Your task to perform on an android device: Search for bose soundsport free on costco, select the first entry, add it to the cart, then select checkout. Image 0: 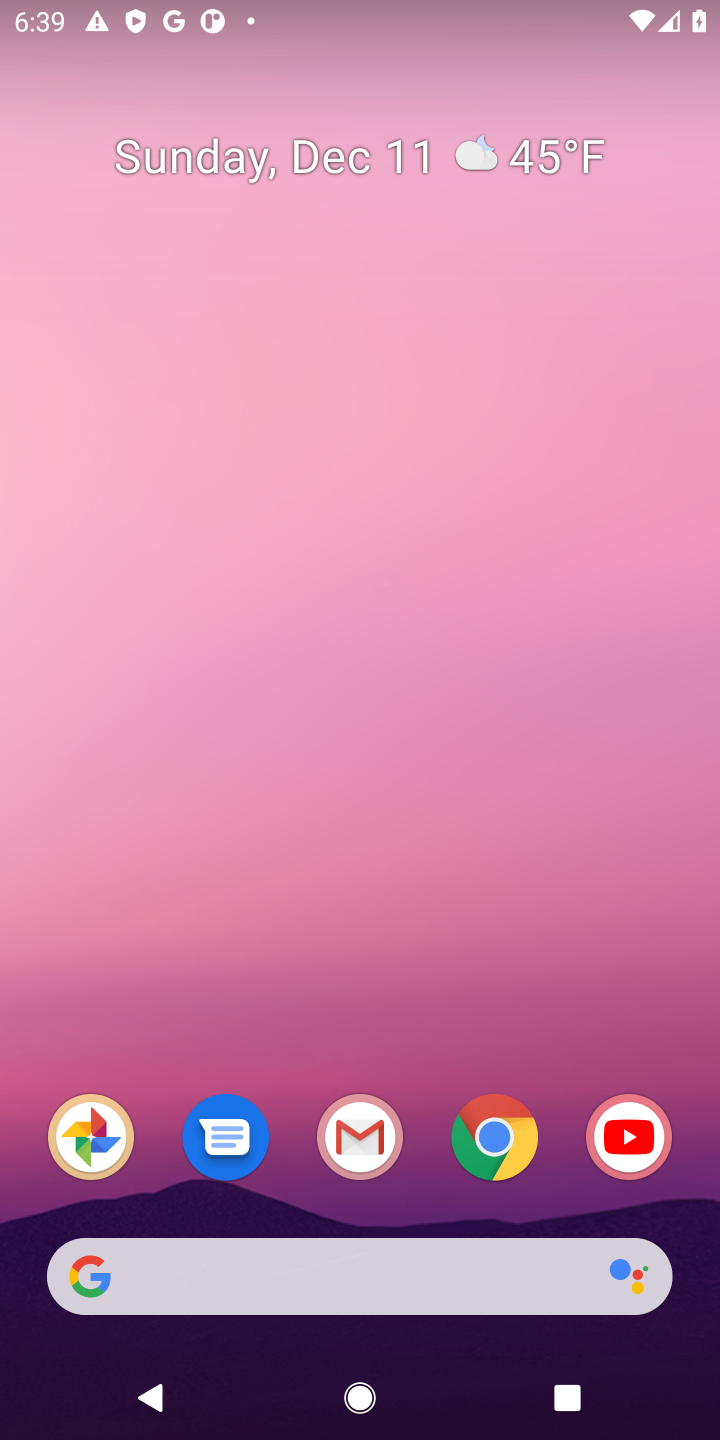
Step 0: click (497, 1123)
Your task to perform on an android device: Search for bose soundsport free on costco, select the first entry, add it to the cart, then select checkout. Image 1: 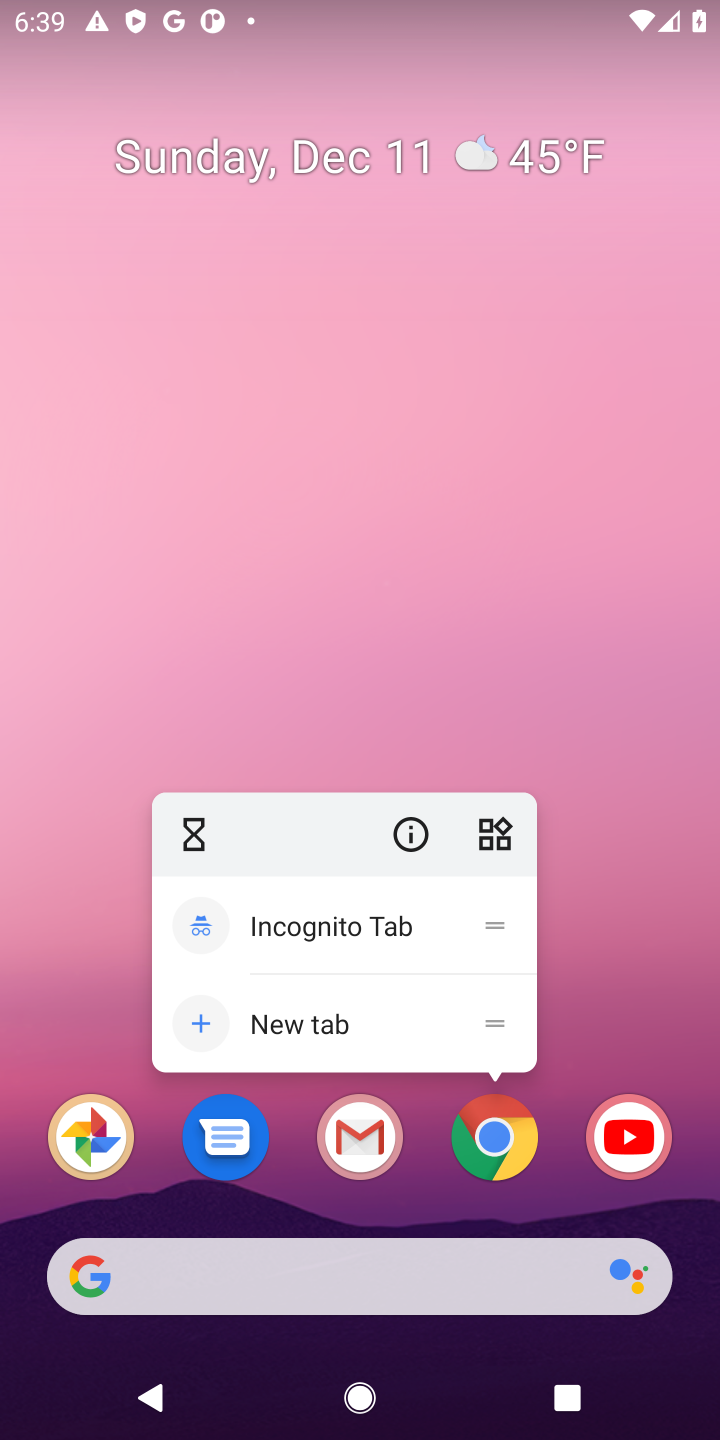
Step 1: click (342, 1016)
Your task to perform on an android device: Search for bose soundsport free on costco, select the first entry, add it to the cart, then select checkout. Image 2: 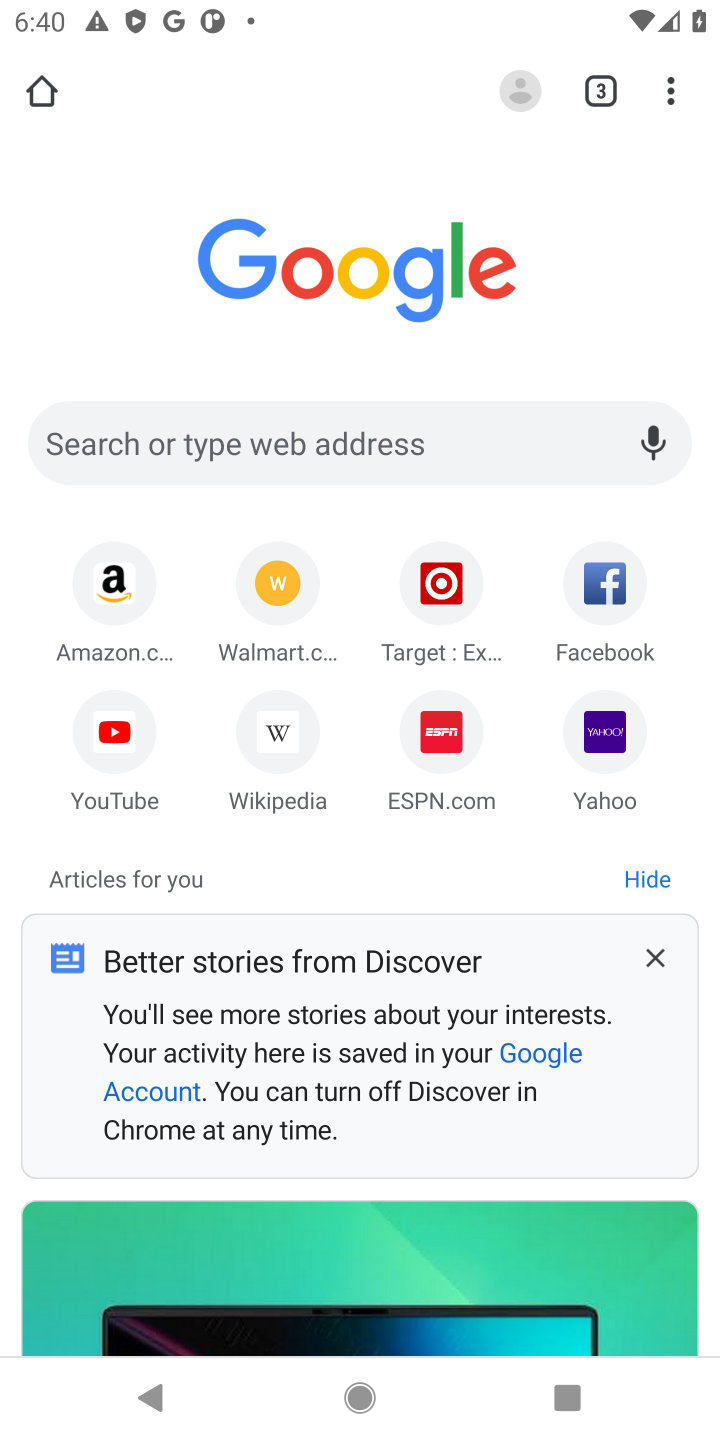
Step 2: click (196, 429)
Your task to perform on an android device: Search for bose soundsport free on costco, select the first entry, add it to the cart, then select checkout. Image 3: 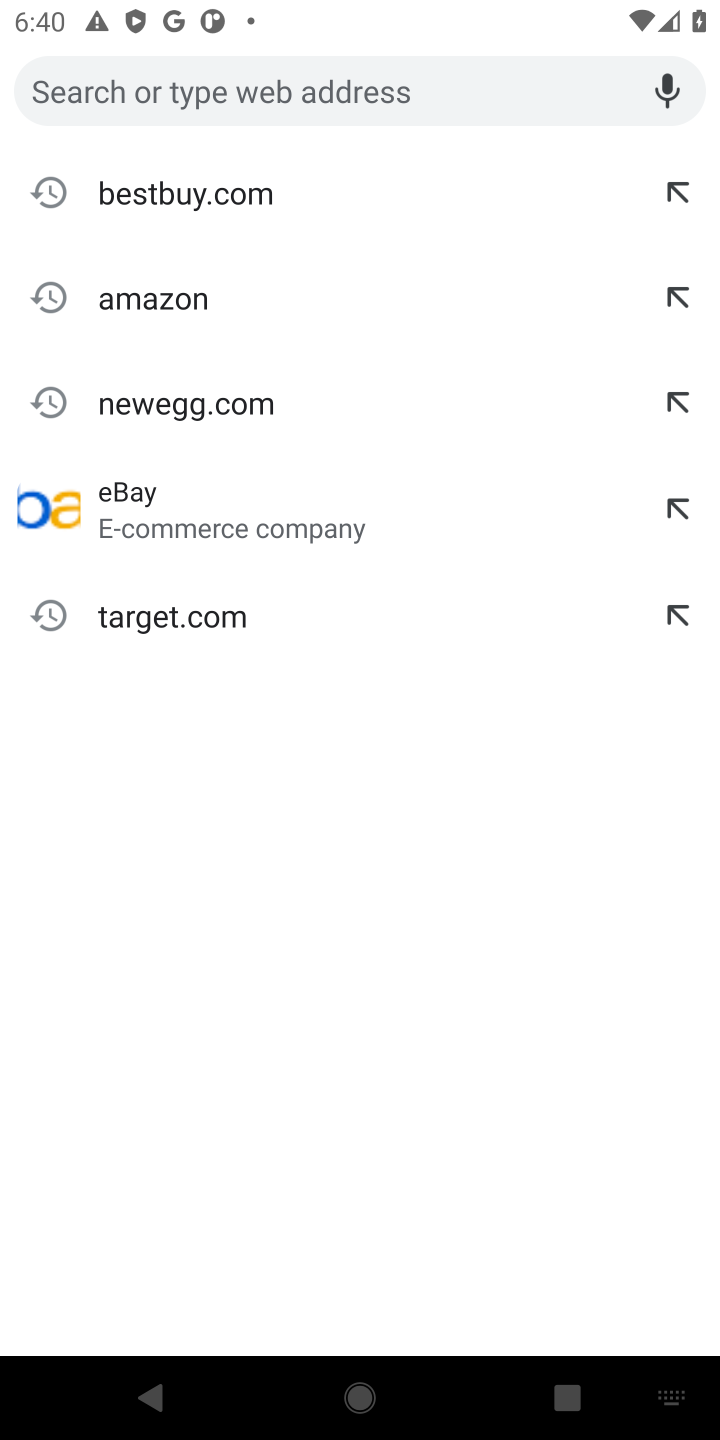
Step 3: type "costco"
Your task to perform on an android device: Search for bose soundsport free on costco, select the first entry, add it to the cart, then select checkout. Image 4: 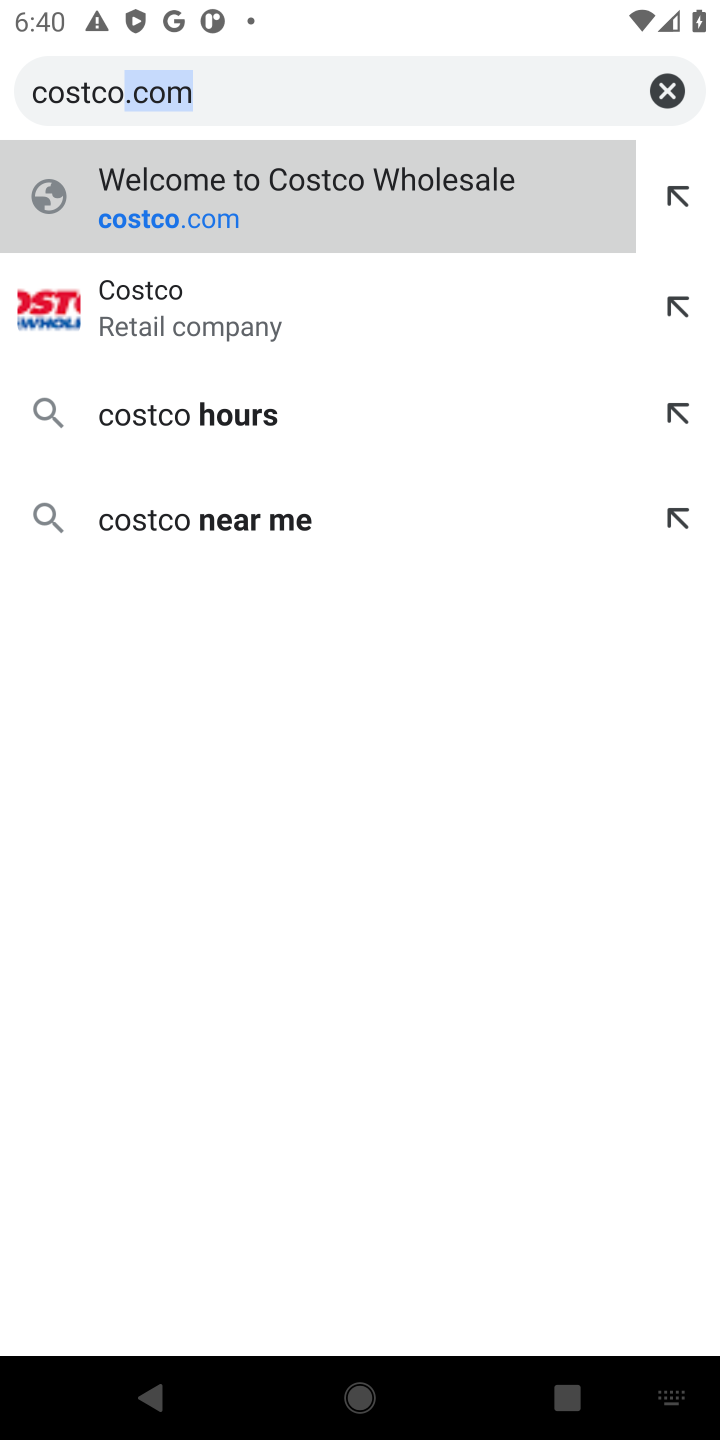
Step 4: click (368, 221)
Your task to perform on an android device: Search for bose soundsport free on costco, select the first entry, add it to the cart, then select checkout. Image 5: 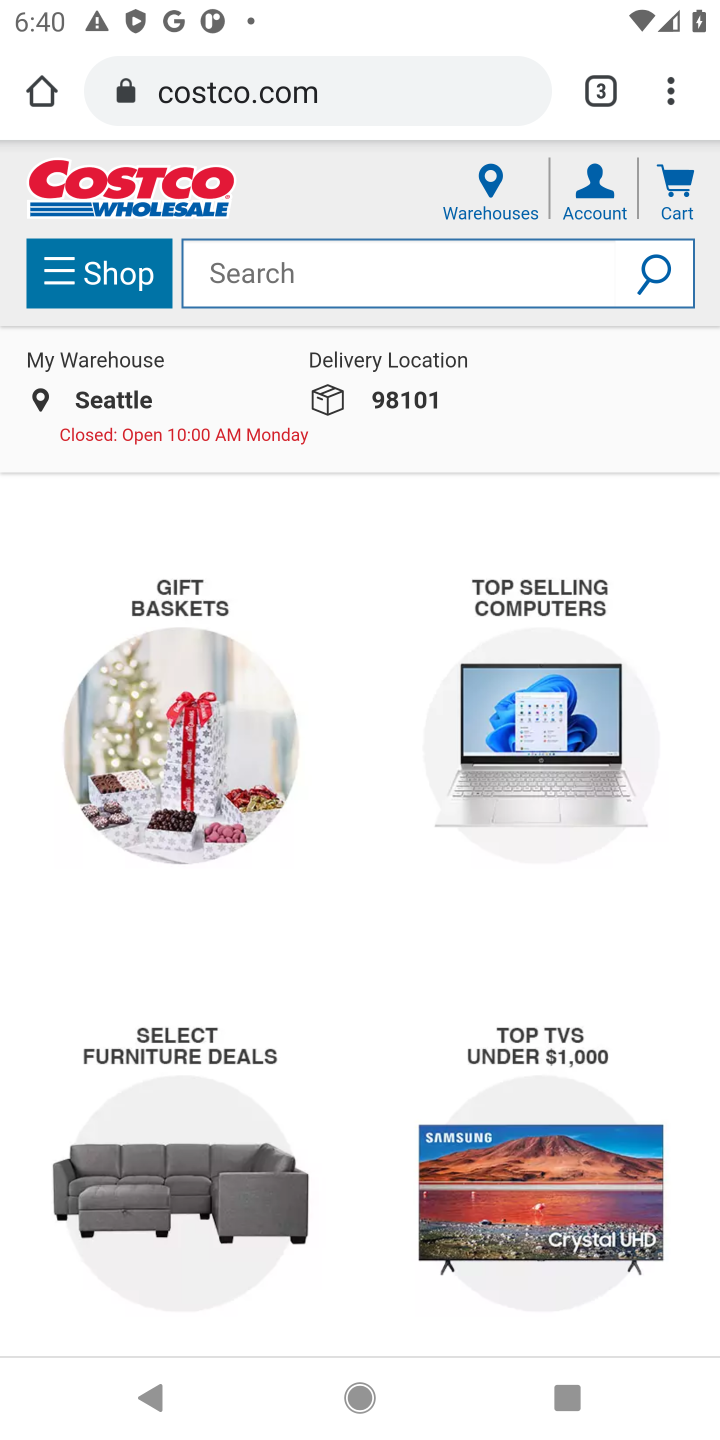
Step 5: click (343, 284)
Your task to perform on an android device: Search for bose soundsport free on costco, select the first entry, add it to the cart, then select checkout. Image 6: 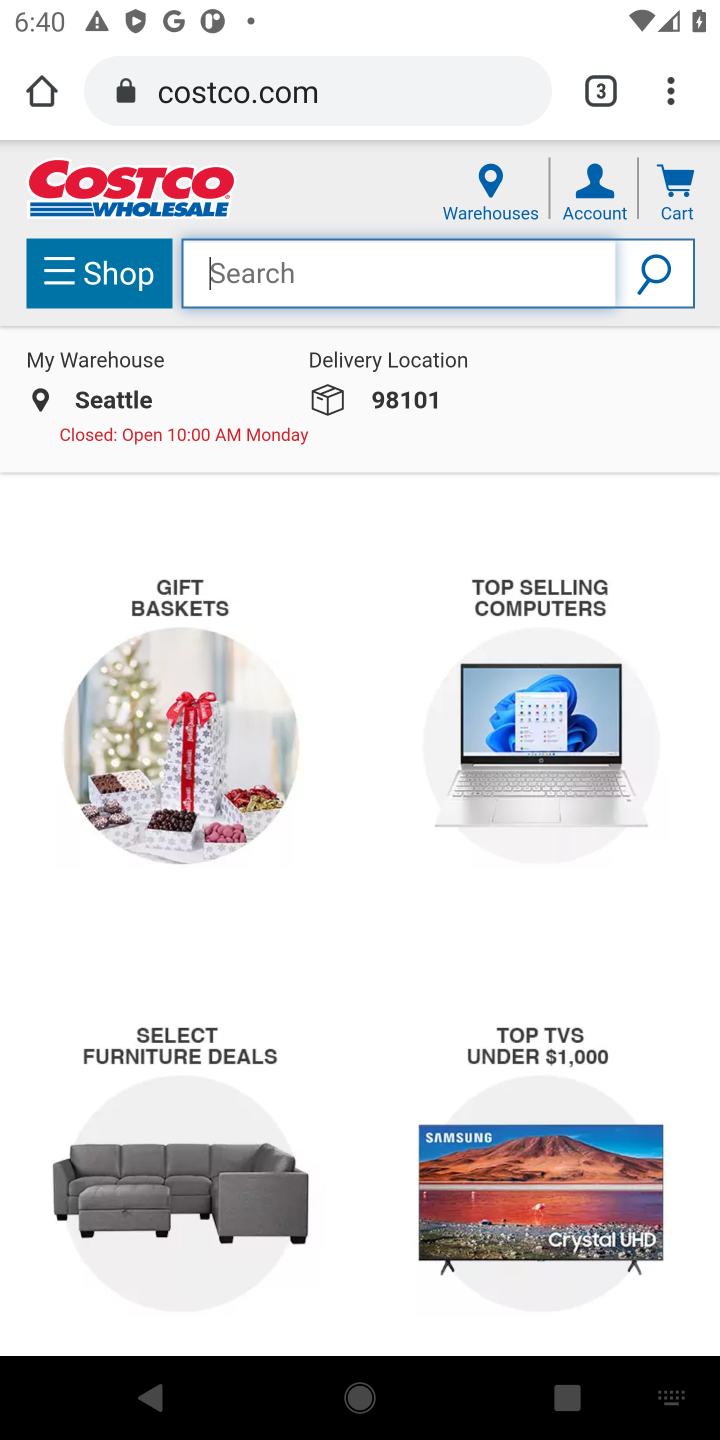
Step 6: type " bose soundsport free "
Your task to perform on an android device: Search for bose soundsport free on costco, select the first entry, add it to the cart, then select checkout. Image 7: 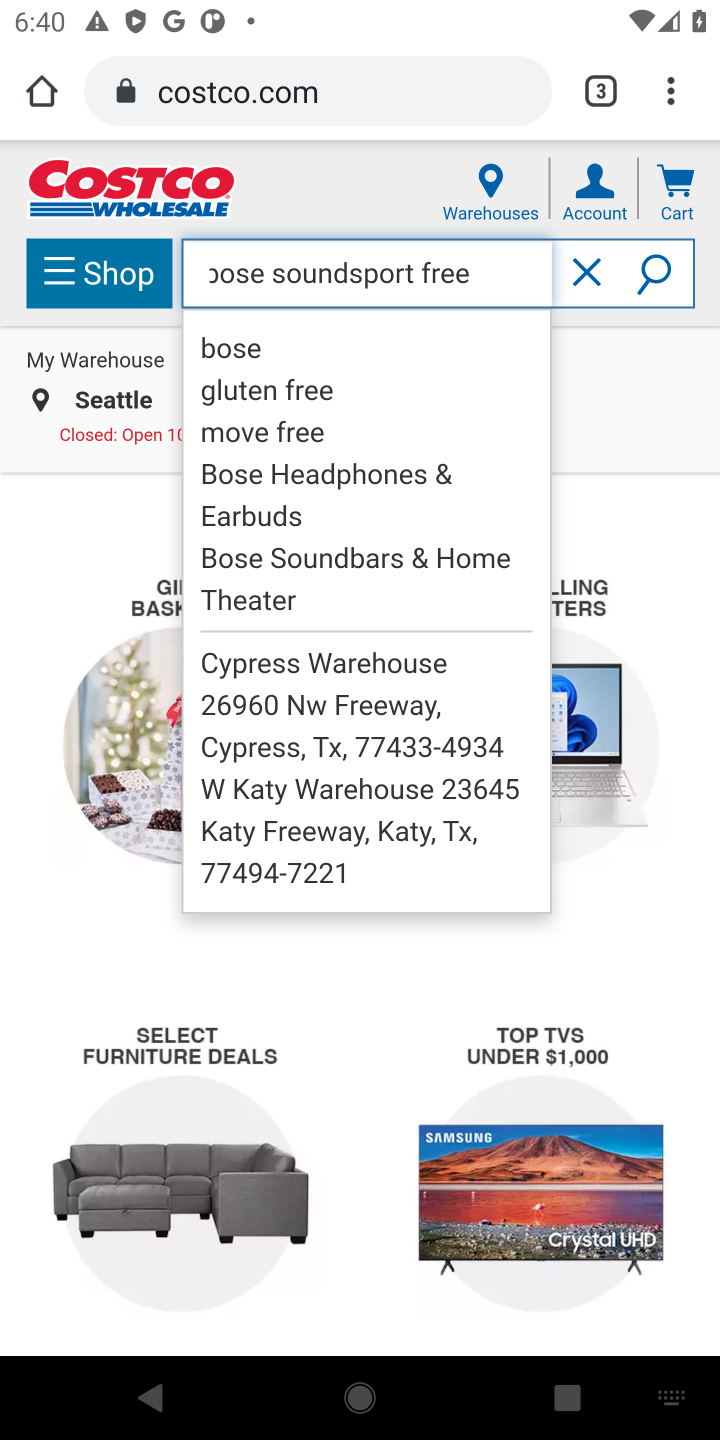
Step 7: click (644, 273)
Your task to perform on an android device: Search for bose soundsport free on costco, select the first entry, add it to the cart, then select checkout. Image 8: 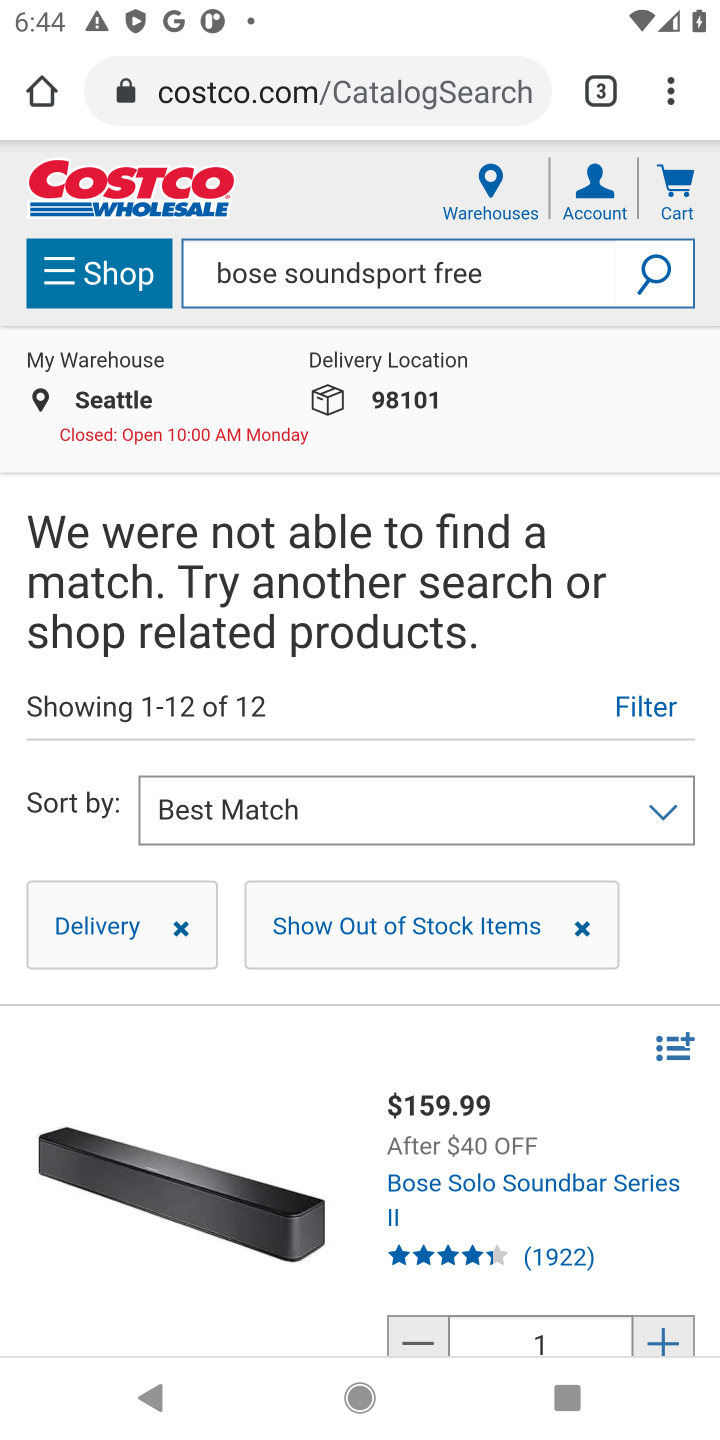
Step 8: task complete